Your task to perform on an android device: turn on translation in the chrome app Image 0: 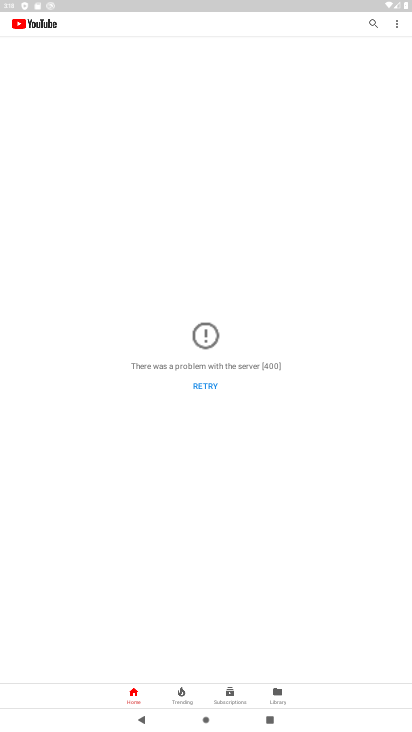
Step 0: press home button
Your task to perform on an android device: turn on translation in the chrome app Image 1: 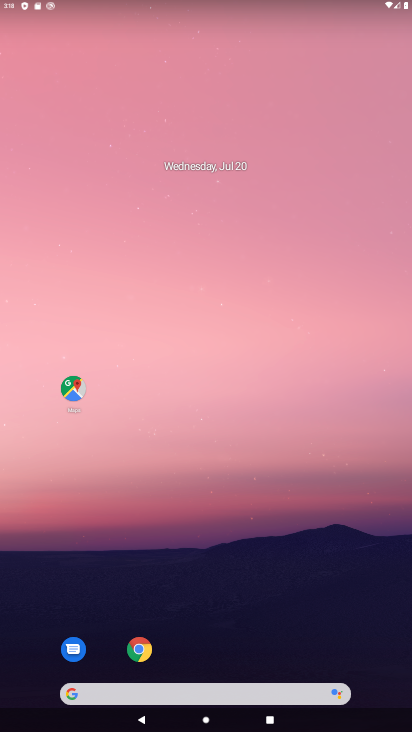
Step 1: click (139, 655)
Your task to perform on an android device: turn on translation in the chrome app Image 2: 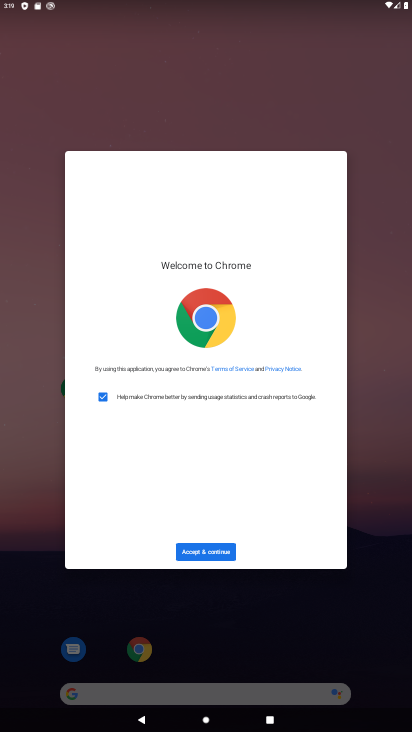
Step 2: click (213, 559)
Your task to perform on an android device: turn on translation in the chrome app Image 3: 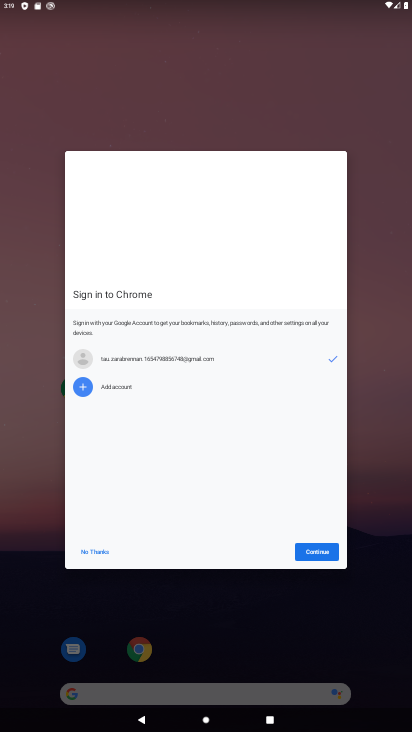
Step 3: click (323, 552)
Your task to perform on an android device: turn on translation in the chrome app Image 4: 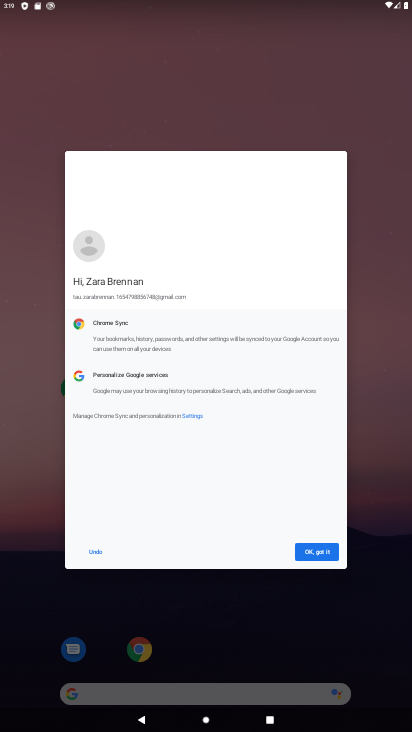
Step 4: click (316, 556)
Your task to perform on an android device: turn on translation in the chrome app Image 5: 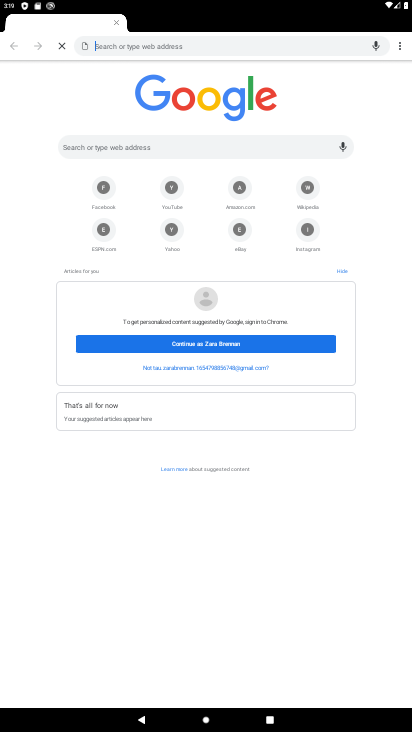
Step 5: click (395, 43)
Your task to perform on an android device: turn on translation in the chrome app Image 6: 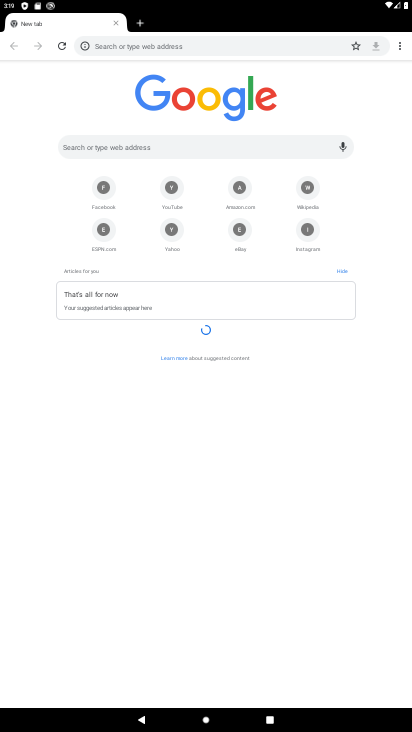
Step 6: click (397, 45)
Your task to perform on an android device: turn on translation in the chrome app Image 7: 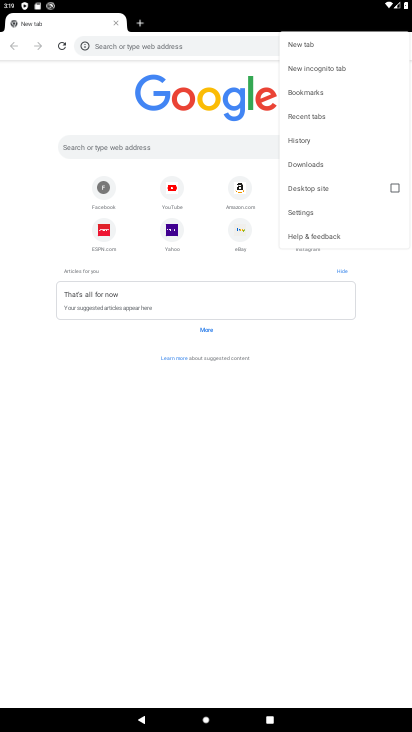
Step 7: click (287, 207)
Your task to perform on an android device: turn on translation in the chrome app Image 8: 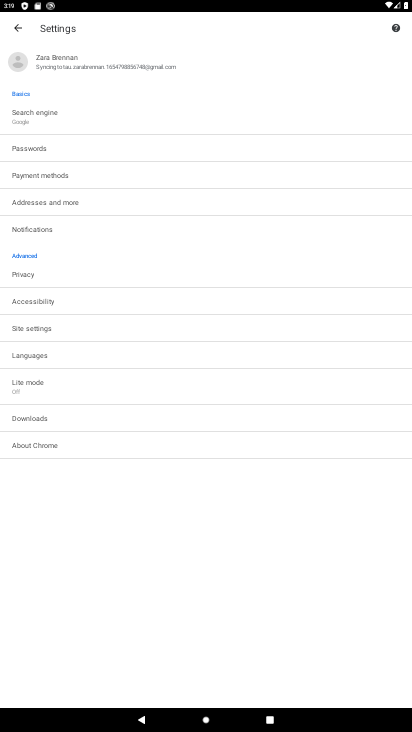
Step 8: click (47, 351)
Your task to perform on an android device: turn on translation in the chrome app Image 9: 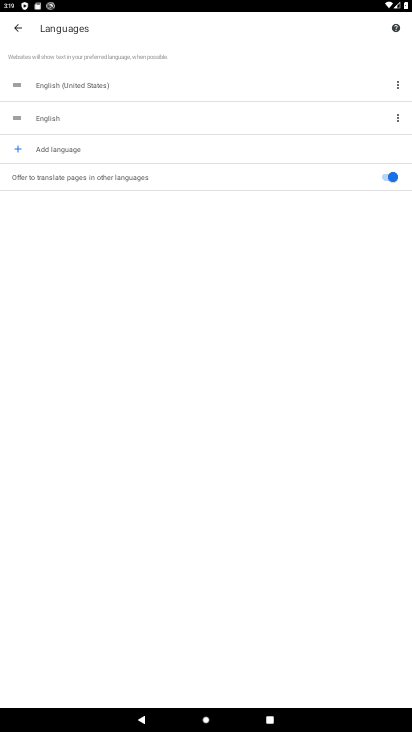
Step 9: task complete